Your task to perform on an android device: manage bookmarks in the chrome app Image 0: 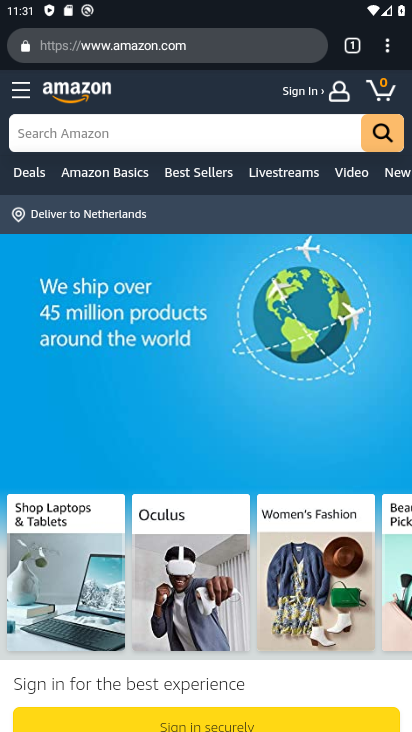
Step 0: click (386, 48)
Your task to perform on an android device: manage bookmarks in the chrome app Image 1: 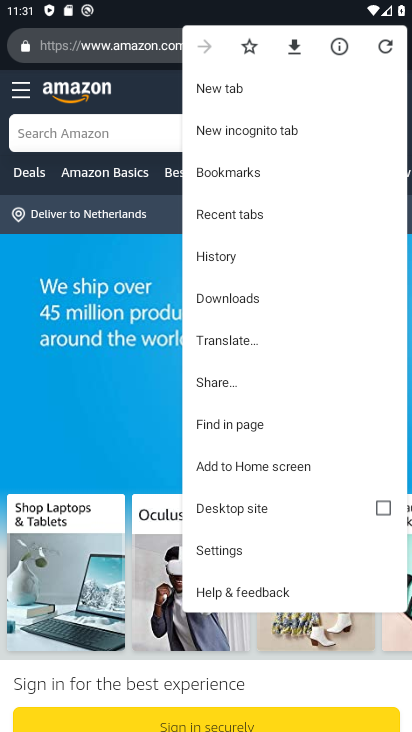
Step 1: click (254, 174)
Your task to perform on an android device: manage bookmarks in the chrome app Image 2: 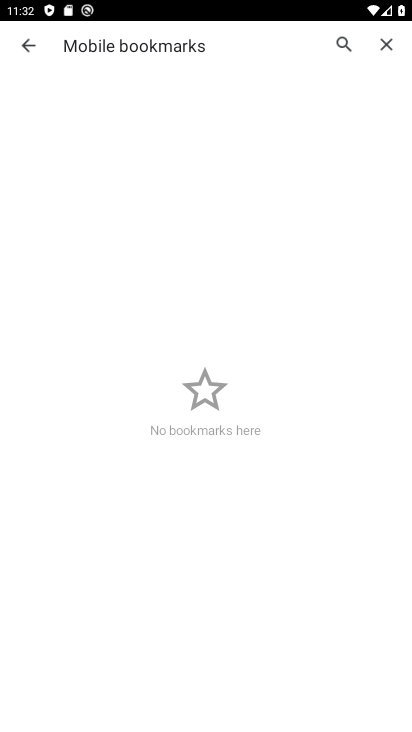
Step 2: task complete